Your task to perform on an android device: open app "Google Pay: Save, Pay, Manage" (install if not already installed) Image 0: 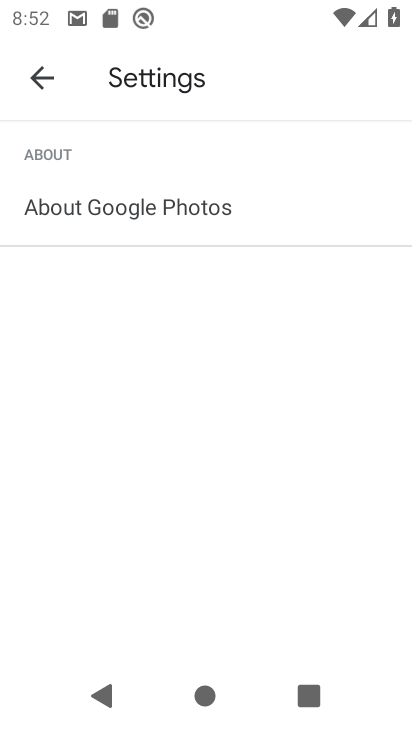
Step 0: press back button
Your task to perform on an android device: open app "Google Pay: Save, Pay, Manage" (install if not already installed) Image 1: 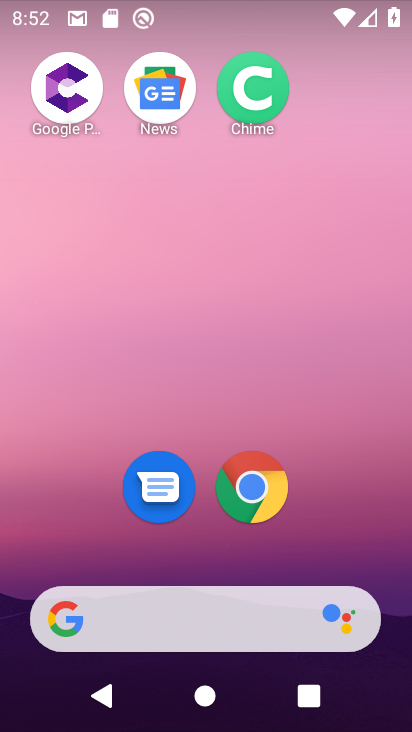
Step 1: drag from (178, 565) to (255, 108)
Your task to perform on an android device: open app "Google Pay: Save, Pay, Manage" (install if not already installed) Image 2: 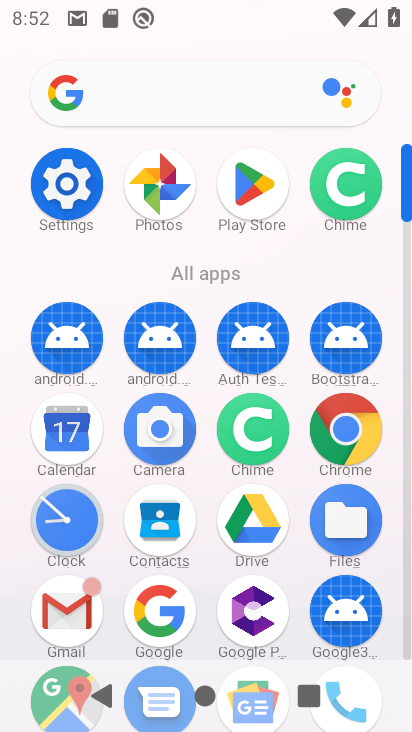
Step 2: click (240, 186)
Your task to perform on an android device: open app "Google Pay: Save, Pay, Manage" (install if not already installed) Image 3: 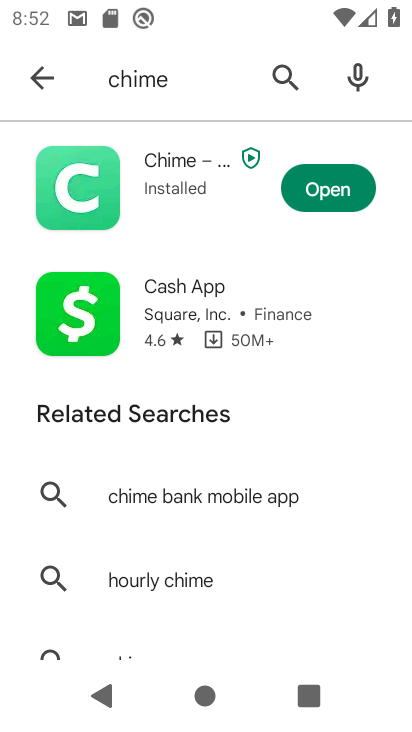
Step 3: click (274, 63)
Your task to perform on an android device: open app "Google Pay: Save, Pay, Manage" (install if not already installed) Image 4: 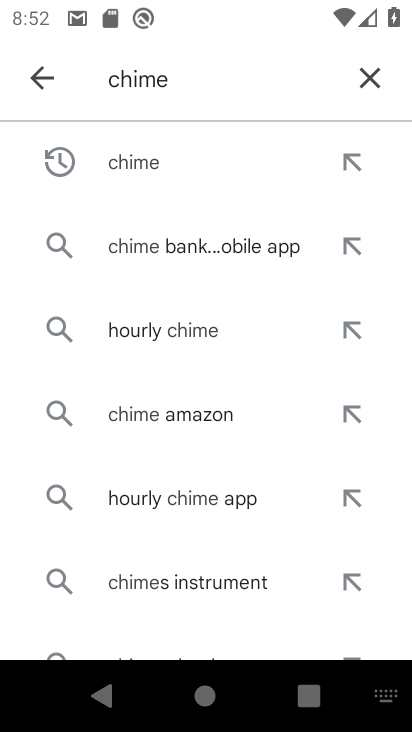
Step 4: click (372, 89)
Your task to perform on an android device: open app "Google Pay: Save, Pay, Manage" (install if not already installed) Image 5: 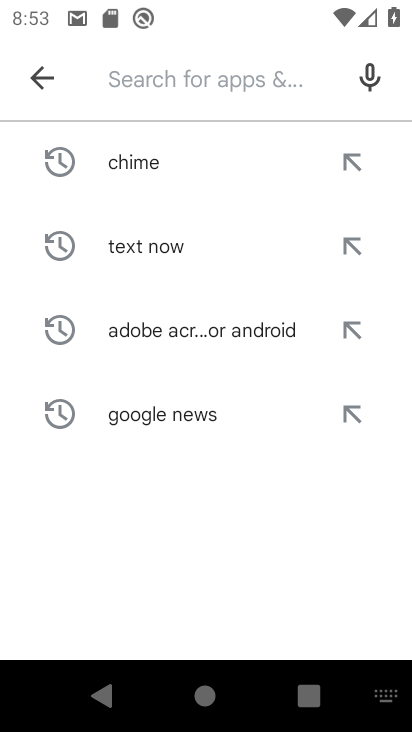
Step 5: click (179, 76)
Your task to perform on an android device: open app "Google Pay: Save, Pay, Manage" (install if not already installed) Image 6: 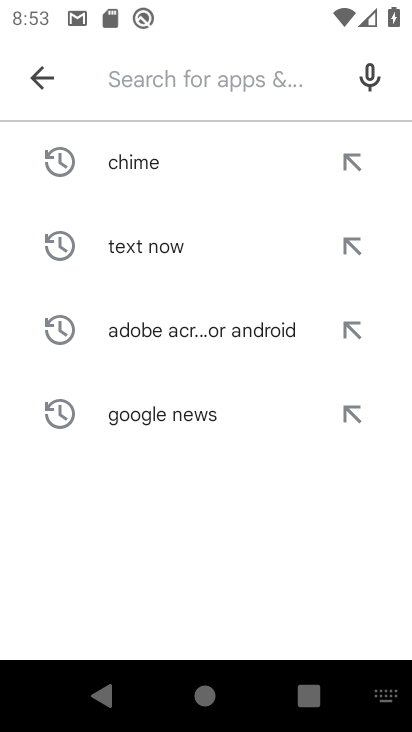
Step 6: type "google pay"
Your task to perform on an android device: open app "Google Pay: Save, Pay, Manage" (install if not already installed) Image 7: 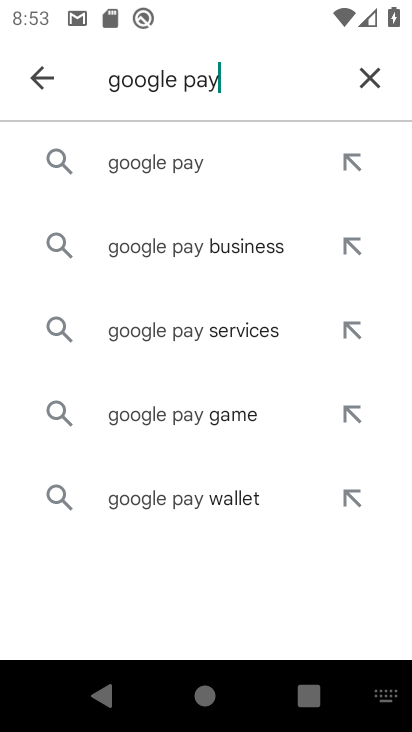
Step 7: click (165, 175)
Your task to perform on an android device: open app "Google Pay: Save, Pay, Manage" (install if not already installed) Image 8: 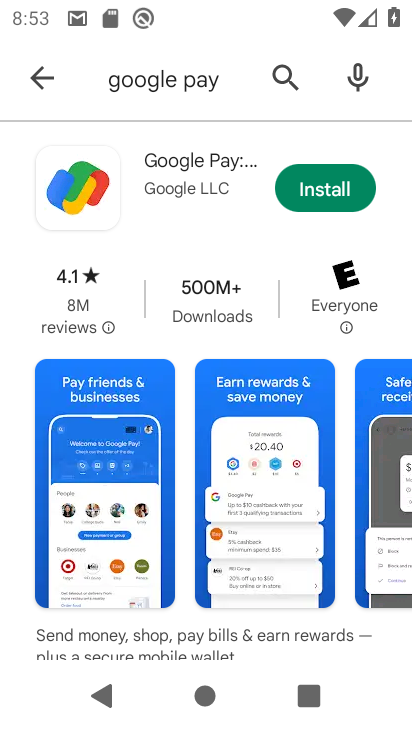
Step 8: click (313, 186)
Your task to perform on an android device: open app "Google Pay: Save, Pay, Manage" (install if not already installed) Image 9: 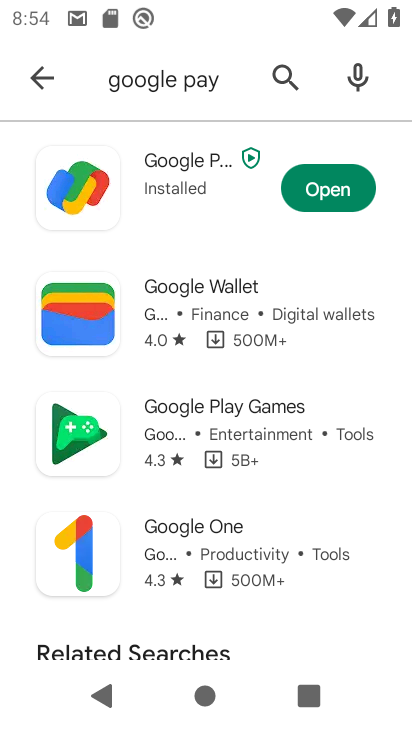
Step 9: click (356, 196)
Your task to perform on an android device: open app "Google Pay: Save, Pay, Manage" (install if not already installed) Image 10: 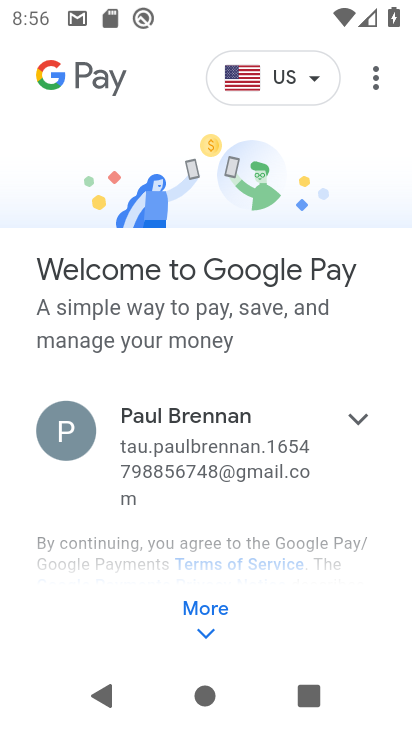
Step 10: task complete